Your task to perform on an android device: toggle location history Image 0: 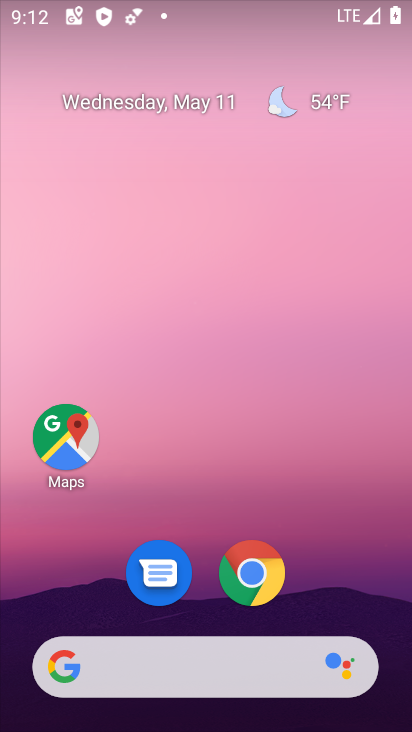
Step 0: drag from (256, 662) to (271, 0)
Your task to perform on an android device: toggle location history Image 1: 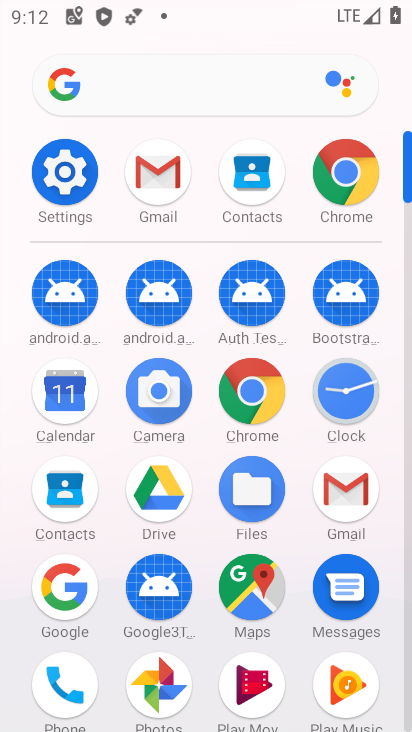
Step 1: click (66, 164)
Your task to perform on an android device: toggle location history Image 2: 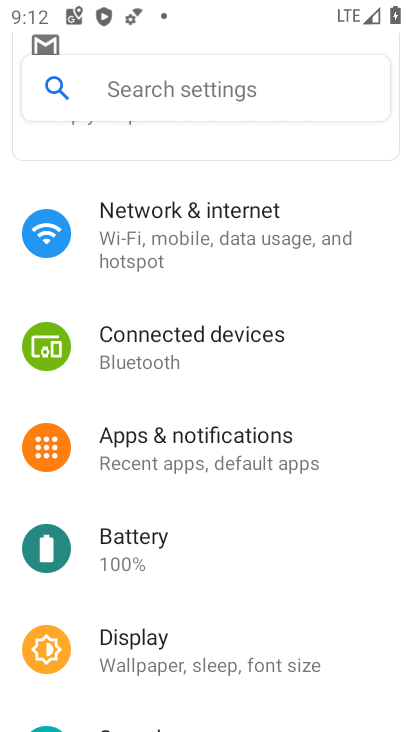
Step 2: drag from (227, 657) to (242, 92)
Your task to perform on an android device: toggle location history Image 3: 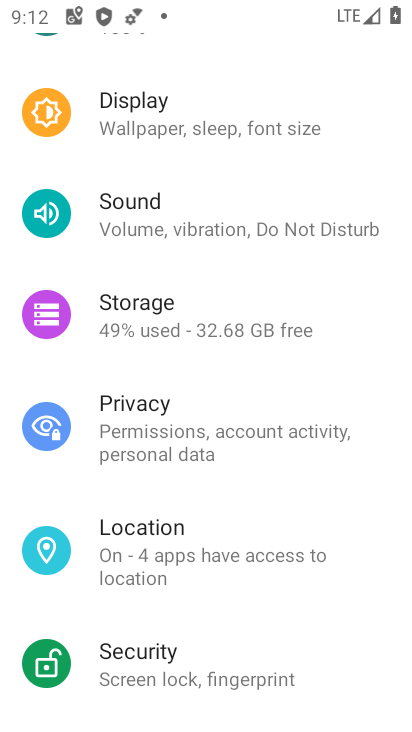
Step 3: click (183, 547)
Your task to perform on an android device: toggle location history Image 4: 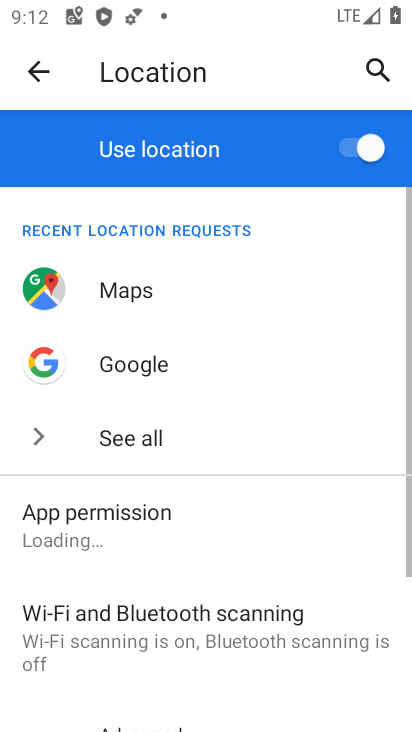
Step 4: drag from (227, 644) to (234, 150)
Your task to perform on an android device: toggle location history Image 5: 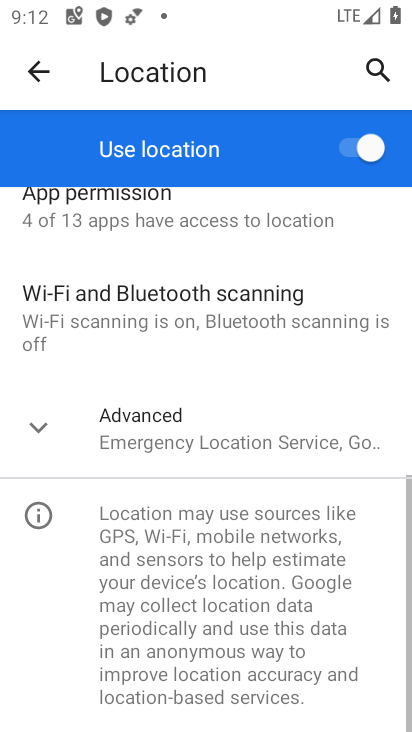
Step 5: click (243, 437)
Your task to perform on an android device: toggle location history Image 6: 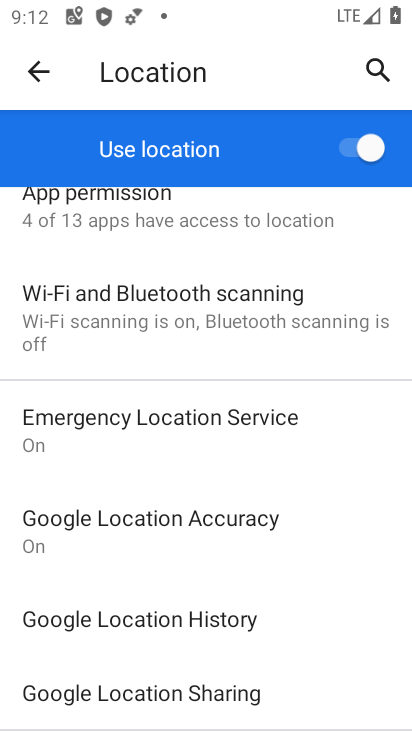
Step 6: click (189, 633)
Your task to perform on an android device: toggle location history Image 7: 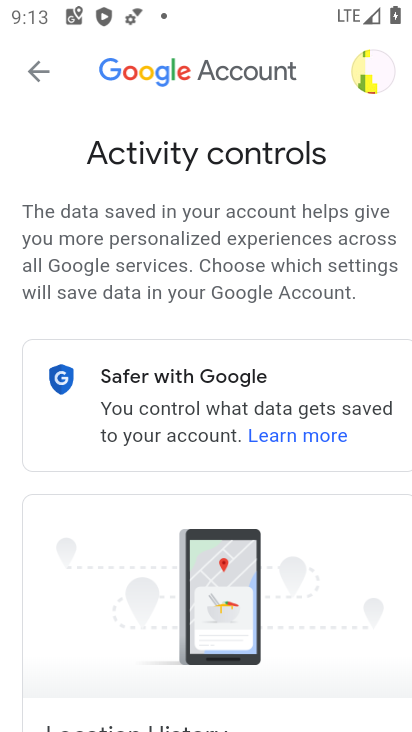
Step 7: drag from (242, 685) to (259, 49)
Your task to perform on an android device: toggle location history Image 8: 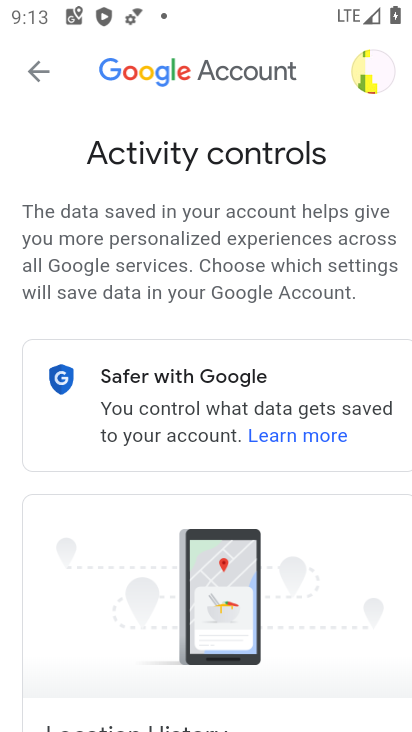
Step 8: drag from (298, 687) to (314, 169)
Your task to perform on an android device: toggle location history Image 9: 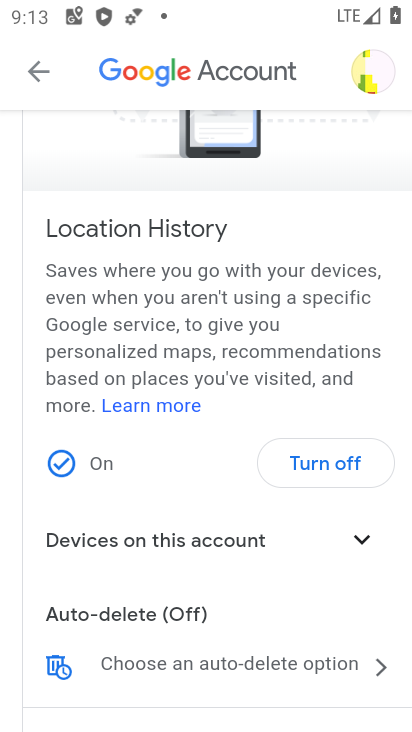
Step 9: click (340, 460)
Your task to perform on an android device: toggle location history Image 10: 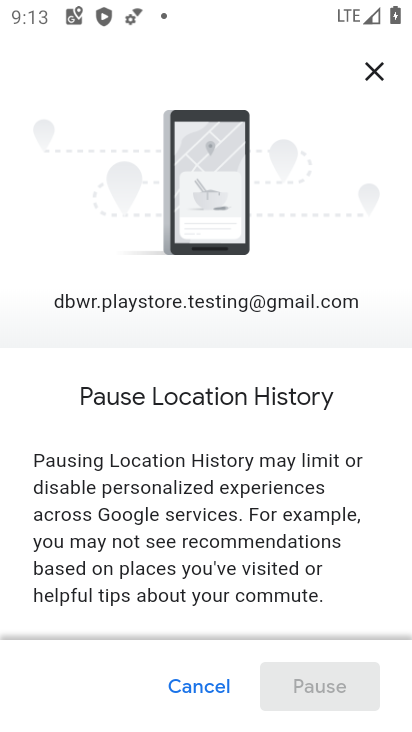
Step 10: drag from (248, 667) to (289, 79)
Your task to perform on an android device: toggle location history Image 11: 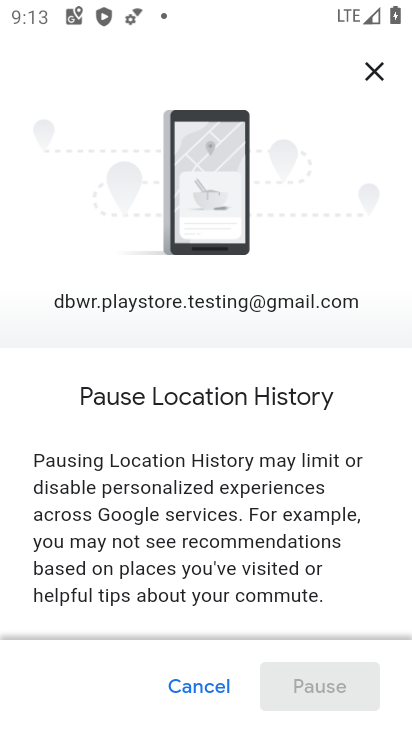
Step 11: drag from (302, 570) to (339, 75)
Your task to perform on an android device: toggle location history Image 12: 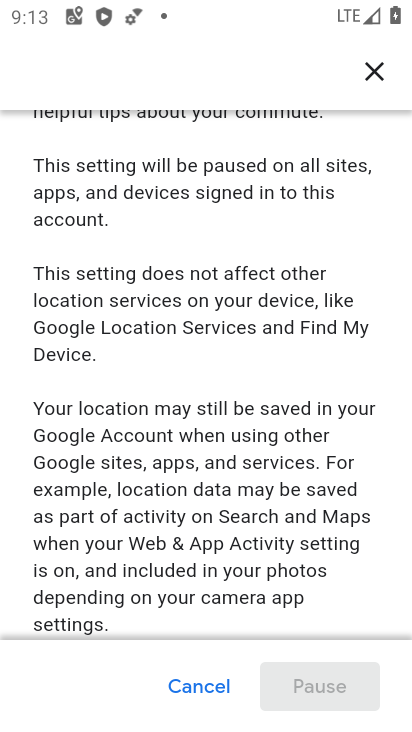
Step 12: drag from (297, 580) to (323, 125)
Your task to perform on an android device: toggle location history Image 13: 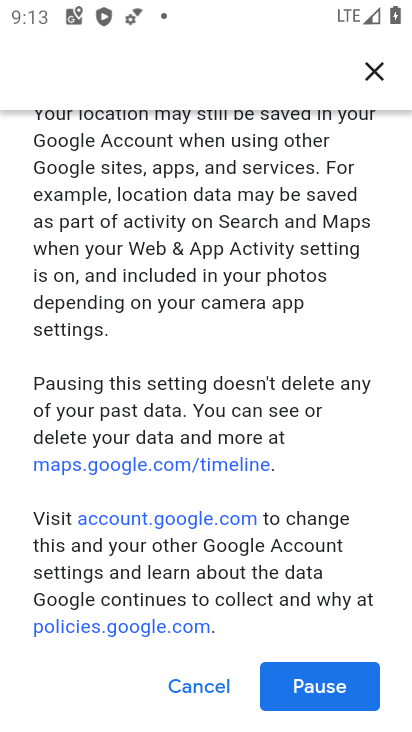
Step 13: click (292, 692)
Your task to perform on an android device: toggle location history Image 14: 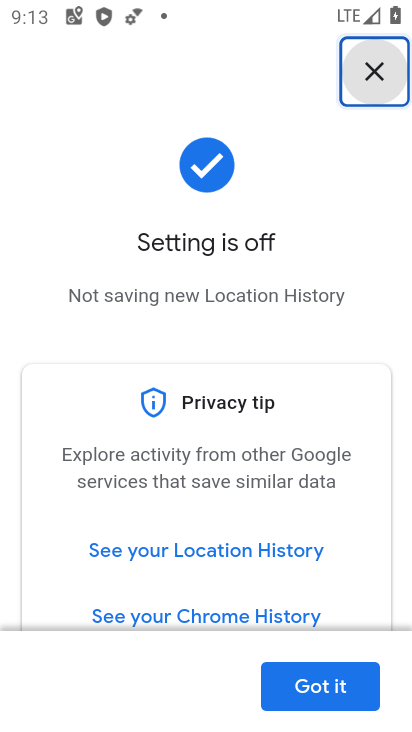
Step 14: click (309, 685)
Your task to perform on an android device: toggle location history Image 15: 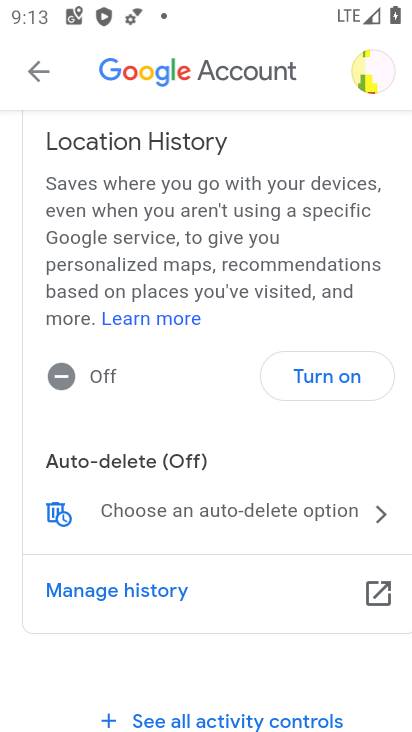
Step 15: task complete